Your task to perform on an android device: see sites visited before in the chrome app Image 0: 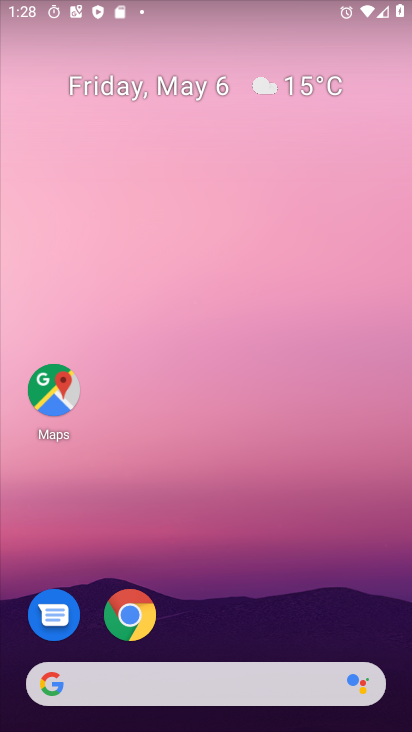
Step 0: drag from (259, 610) to (282, 94)
Your task to perform on an android device: see sites visited before in the chrome app Image 1: 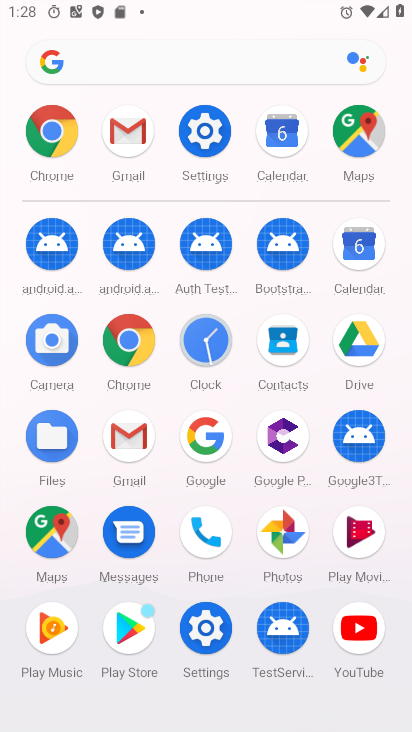
Step 1: click (114, 335)
Your task to perform on an android device: see sites visited before in the chrome app Image 2: 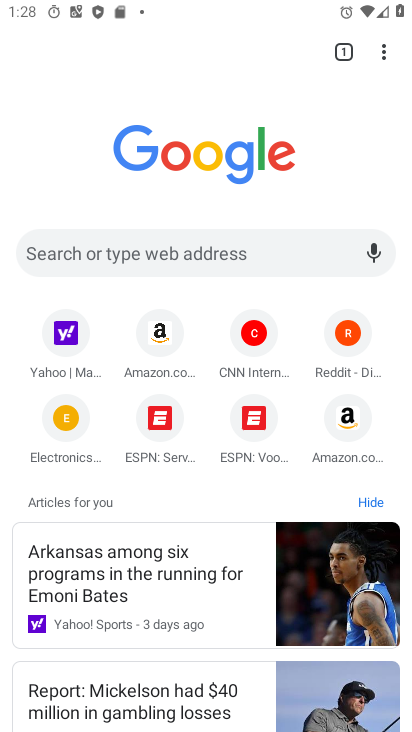
Step 2: click (384, 52)
Your task to perform on an android device: see sites visited before in the chrome app Image 3: 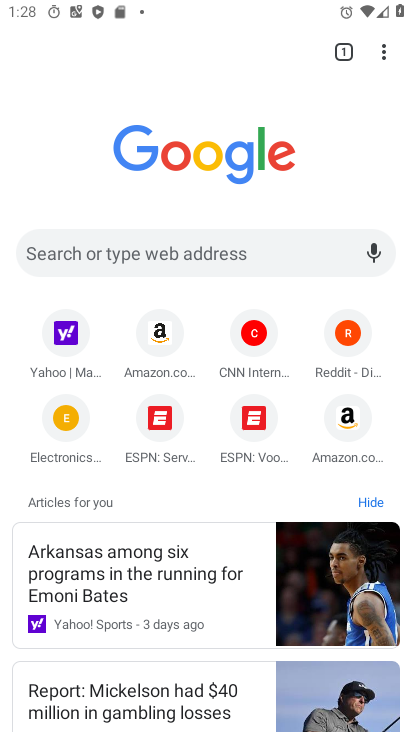
Step 3: task complete